Your task to perform on an android device: Show me recent news Image 0: 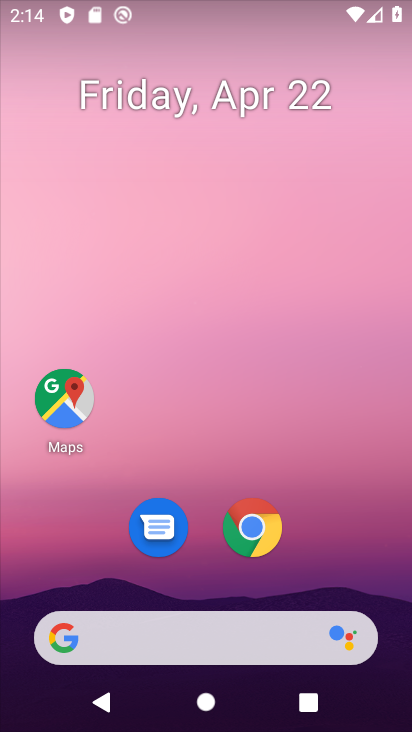
Step 0: drag from (393, 612) to (298, 40)
Your task to perform on an android device: Show me recent news Image 1: 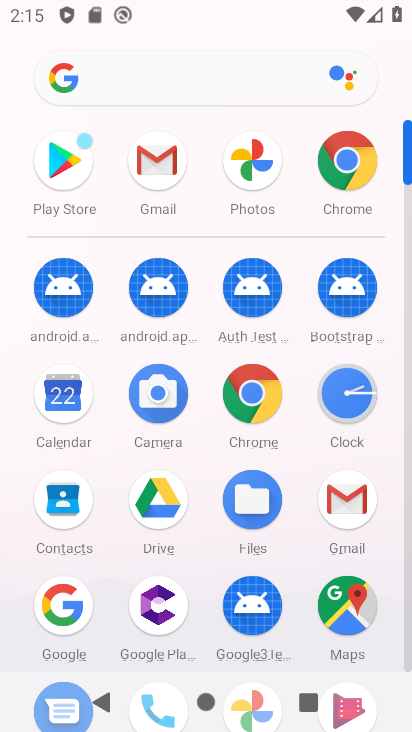
Step 1: click (248, 378)
Your task to perform on an android device: Show me recent news Image 2: 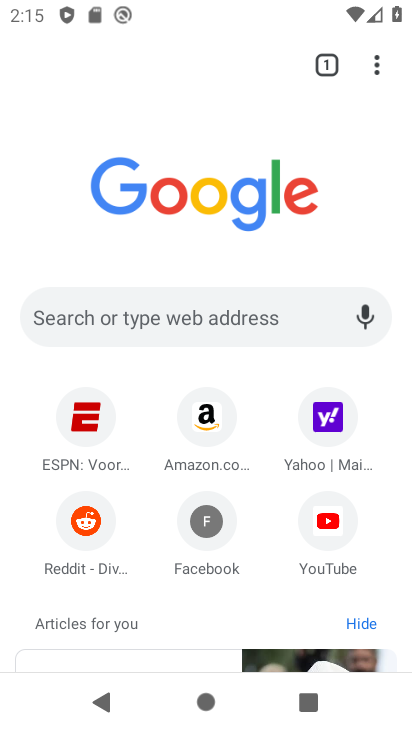
Step 2: click (181, 662)
Your task to perform on an android device: Show me recent news Image 3: 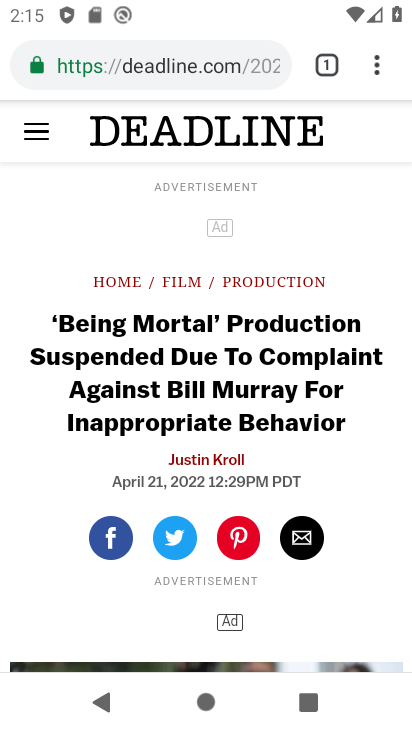
Step 3: task complete